Your task to perform on an android device: Go to Maps Image 0: 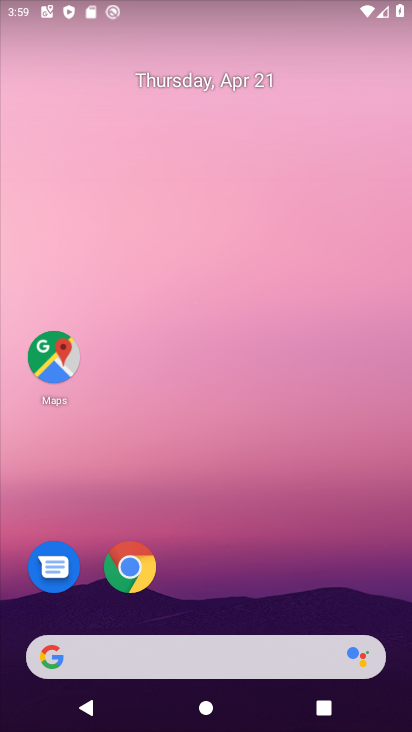
Step 0: drag from (183, 604) to (210, 413)
Your task to perform on an android device: Go to Maps Image 1: 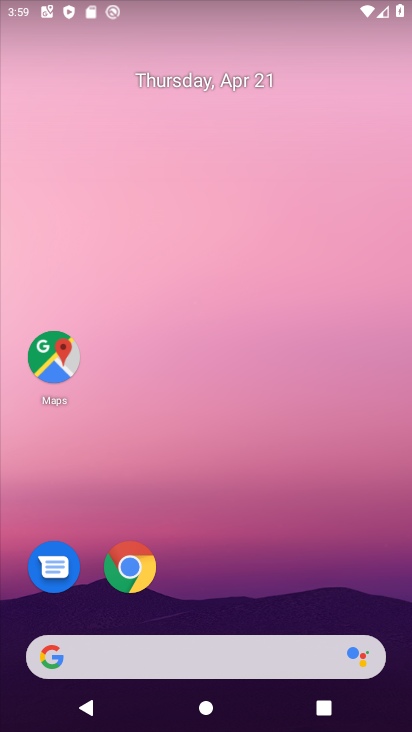
Step 1: drag from (234, 631) to (269, 1)
Your task to perform on an android device: Go to Maps Image 2: 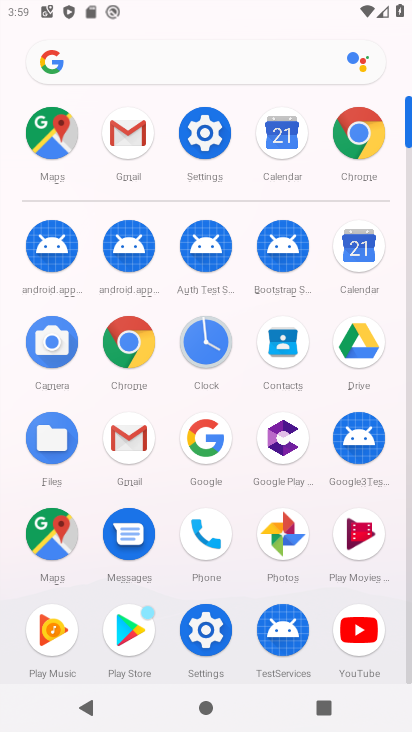
Step 2: click (75, 532)
Your task to perform on an android device: Go to Maps Image 3: 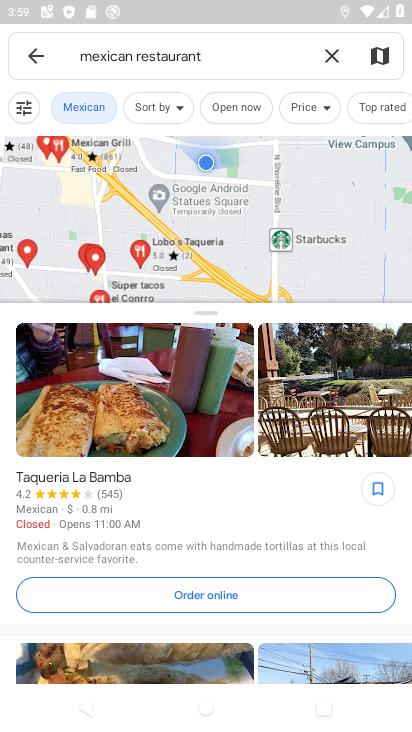
Step 3: task complete